Your task to perform on an android device: add a label to a message in the gmail app Image 0: 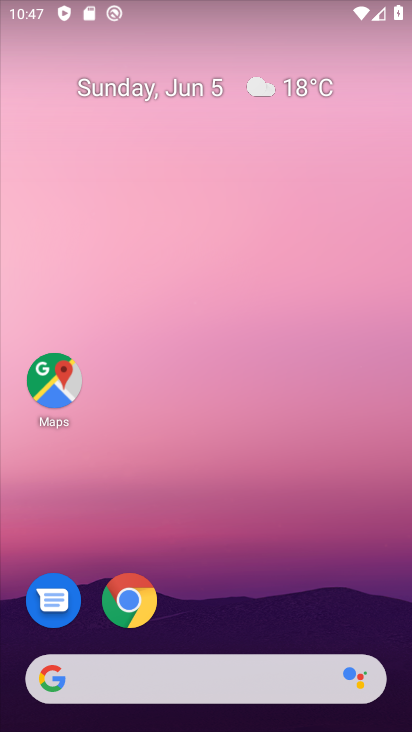
Step 0: drag from (350, 611) to (320, 192)
Your task to perform on an android device: add a label to a message in the gmail app Image 1: 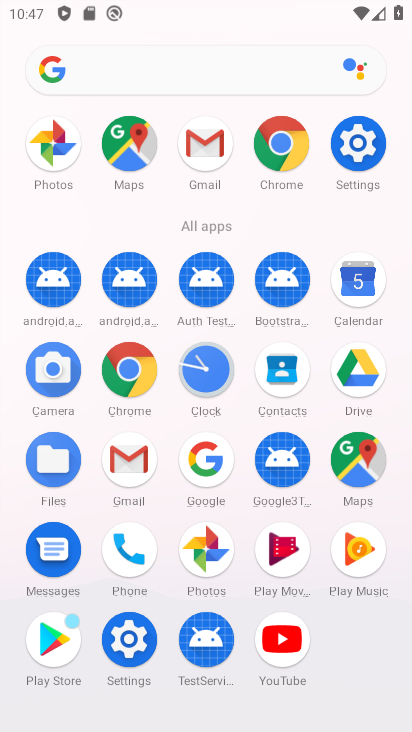
Step 1: click (123, 467)
Your task to perform on an android device: add a label to a message in the gmail app Image 2: 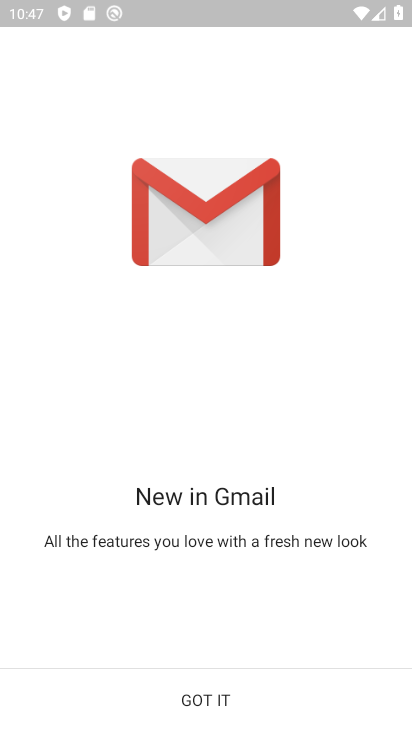
Step 2: click (194, 706)
Your task to perform on an android device: add a label to a message in the gmail app Image 3: 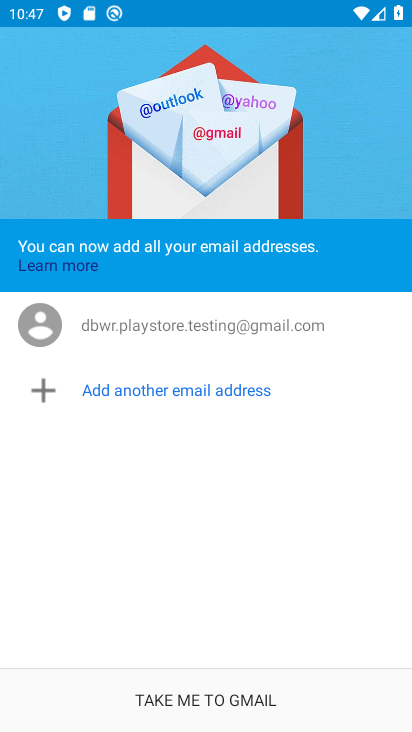
Step 3: click (192, 704)
Your task to perform on an android device: add a label to a message in the gmail app Image 4: 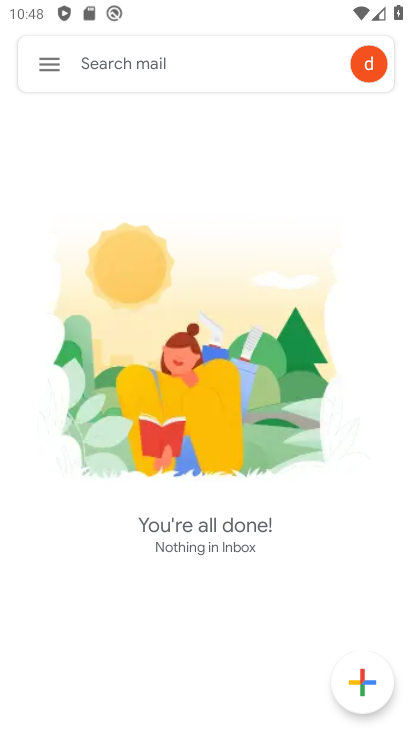
Step 4: click (51, 74)
Your task to perform on an android device: add a label to a message in the gmail app Image 5: 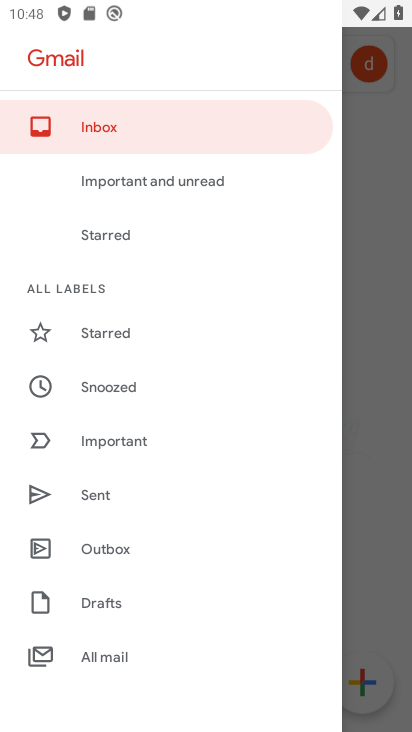
Step 5: click (119, 651)
Your task to perform on an android device: add a label to a message in the gmail app Image 6: 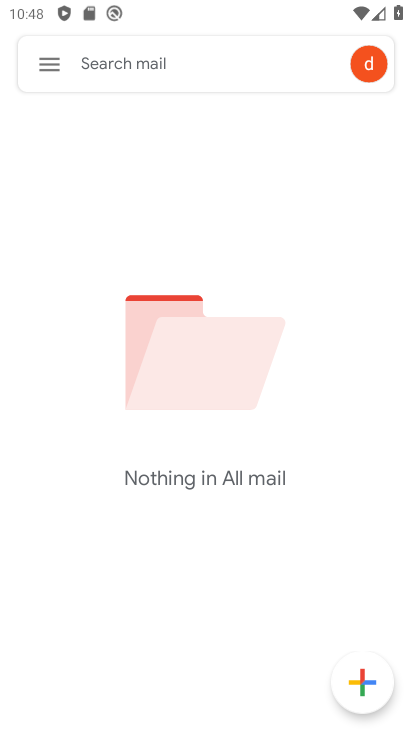
Step 6: task complete